Your task to perform on an android device: Go to Google maps Image 0: 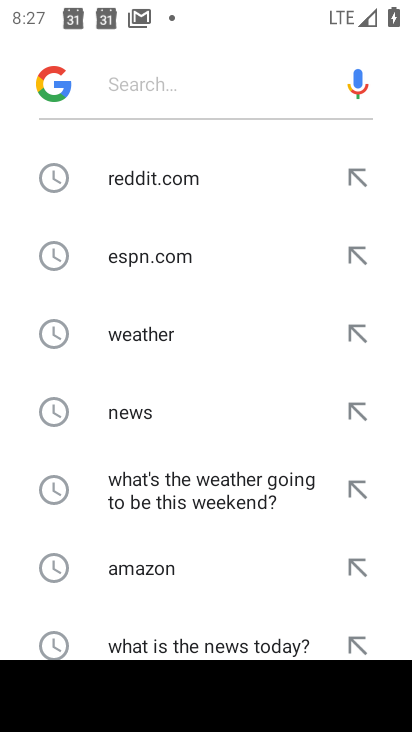
Step 0: press home button
Your task to perform on an android device: Go to Google maps Image 1: 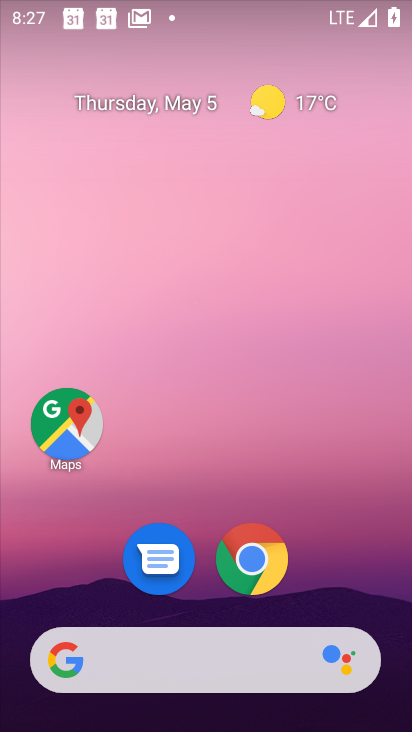
Step 1: click (53, 429)
Your task to perform on an android device: Go to Google maps Image 2: 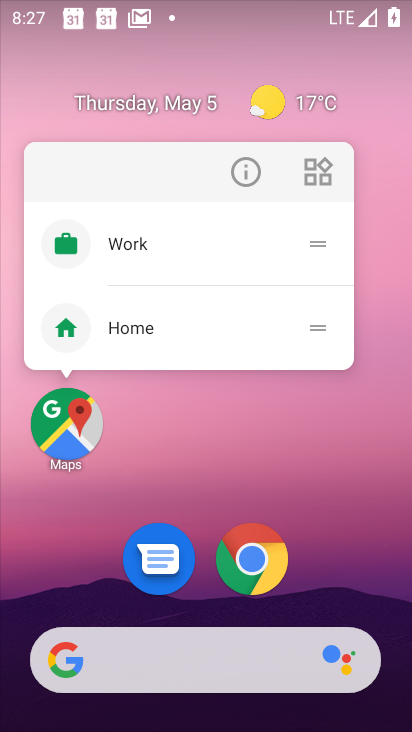
Step 2: click (65, 416)
Your task to perform on an android device: Go to Google maps Image 3: 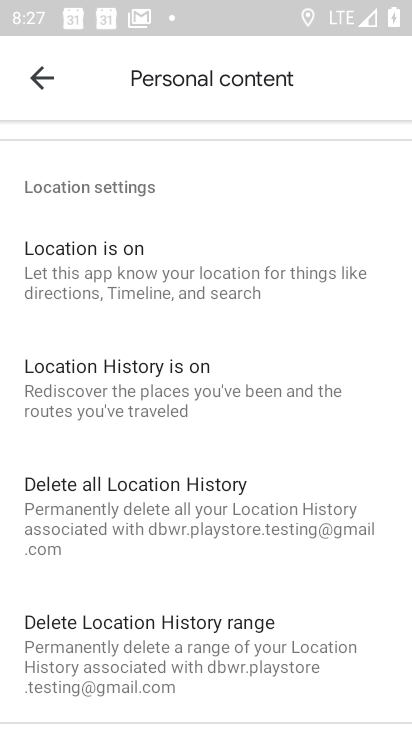
Step 3: task complete